Your task to perform on an android device: toggle javascript in the chrome app Image 0: 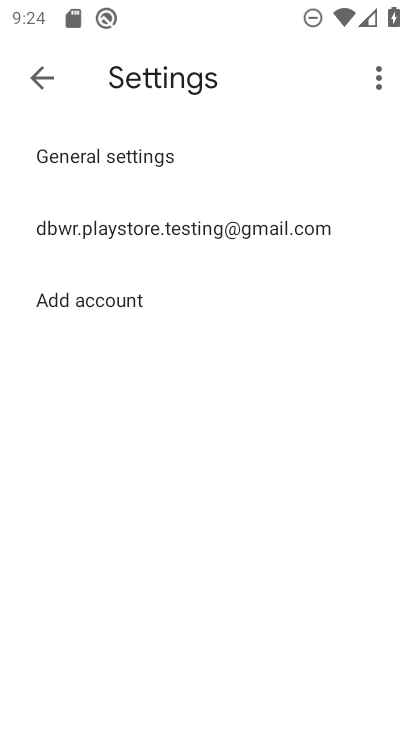
Step 0: press home button
Your task to perform on an android device: toggle javascript in the chrome app Image 1: 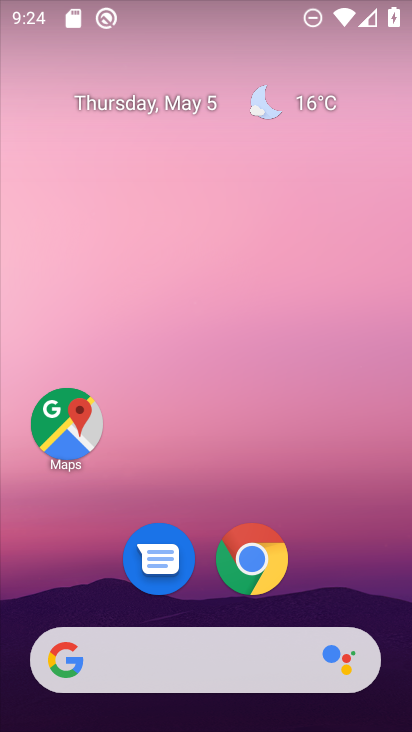
Step 1: click (256, 567)
Your task to perform on an android device: toggle javascript in the chrome app Image 2: 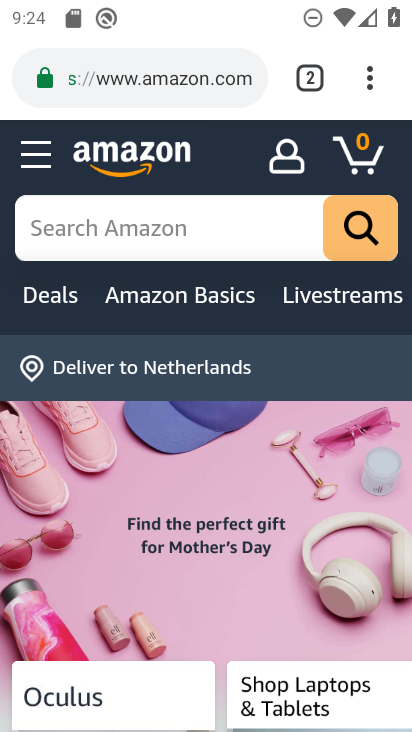
Step 2: drag from (371, 76) to (135, 620)
Your task to perform on an android device: toggle javascript in the chrome app Image 3: 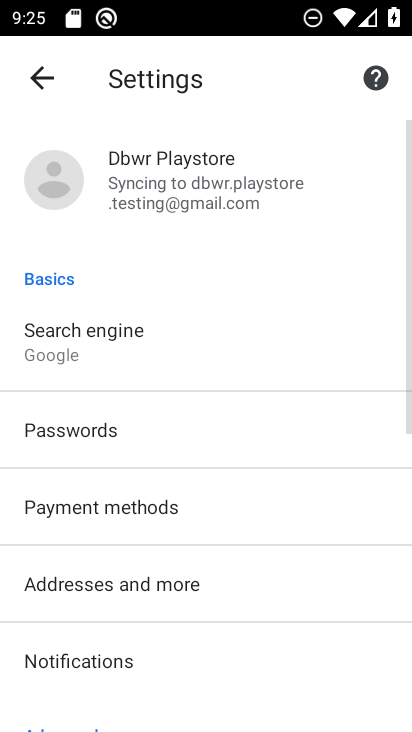
Step 3: drag from (259, 602) to (245, 159)
Your task to perform on an android device: toggle javascript in the chrome app Image 4: 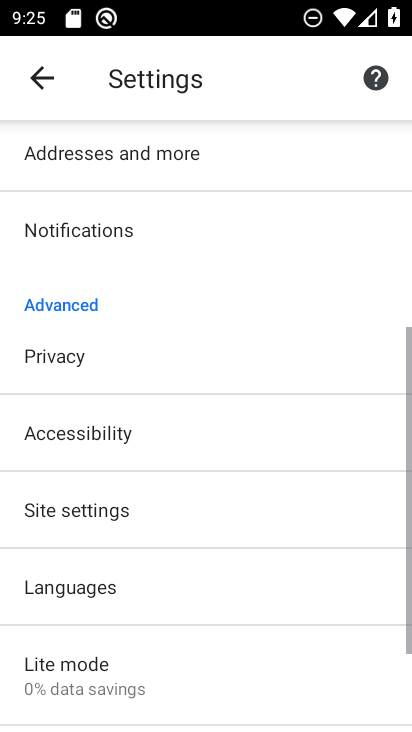
Step 4: click (92, 510)
Your task to perform on an android device: toggle javascript in the chrome app Image 5: 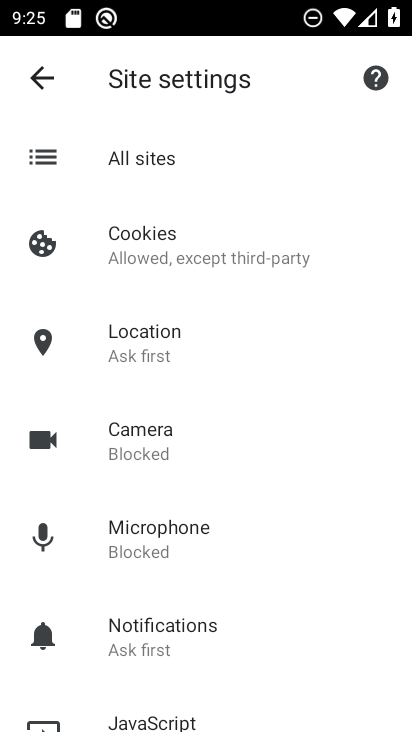
Step 5: drag from (395, 574) to (395, 245)
Your task to perform on an android device: toggle javascript in the chrome app Image 6: 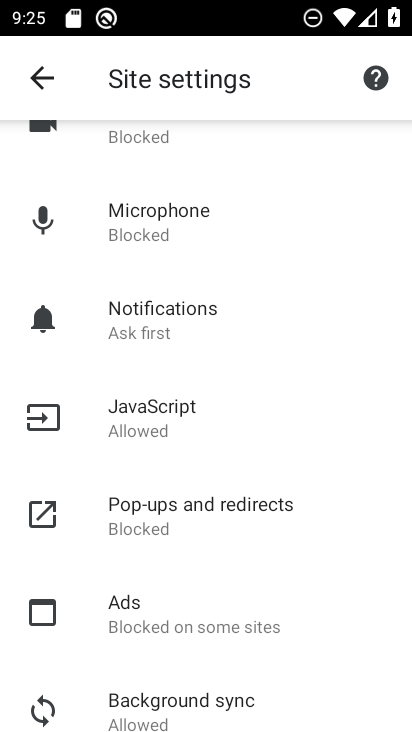
Step 6: click (148, 418)
Your task to perform on an android device: toggle javascript in the chrome app Image 7: 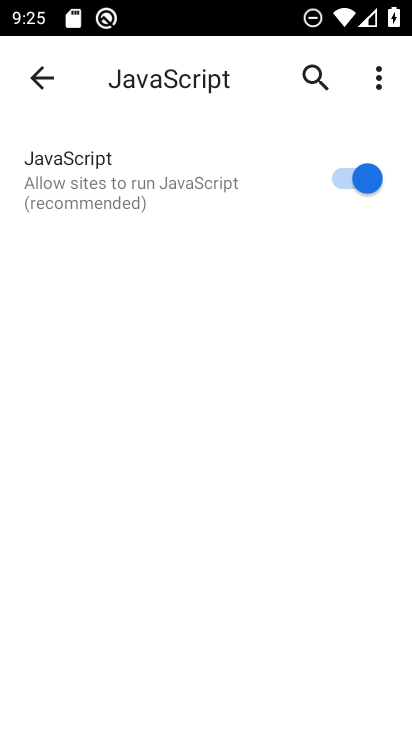
Step 7: click (364, 182)
Your task to perform on an android device: toggle javascript in the chrome app Image 8: 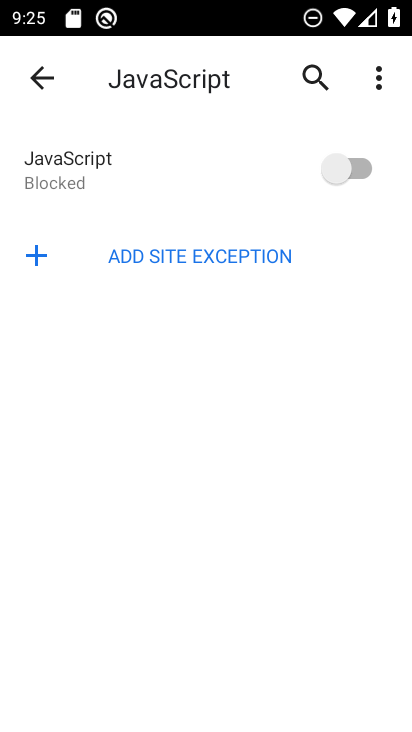
Step 8: task complete